Your task to perform on an android device: Install the Twitter app Image 0: 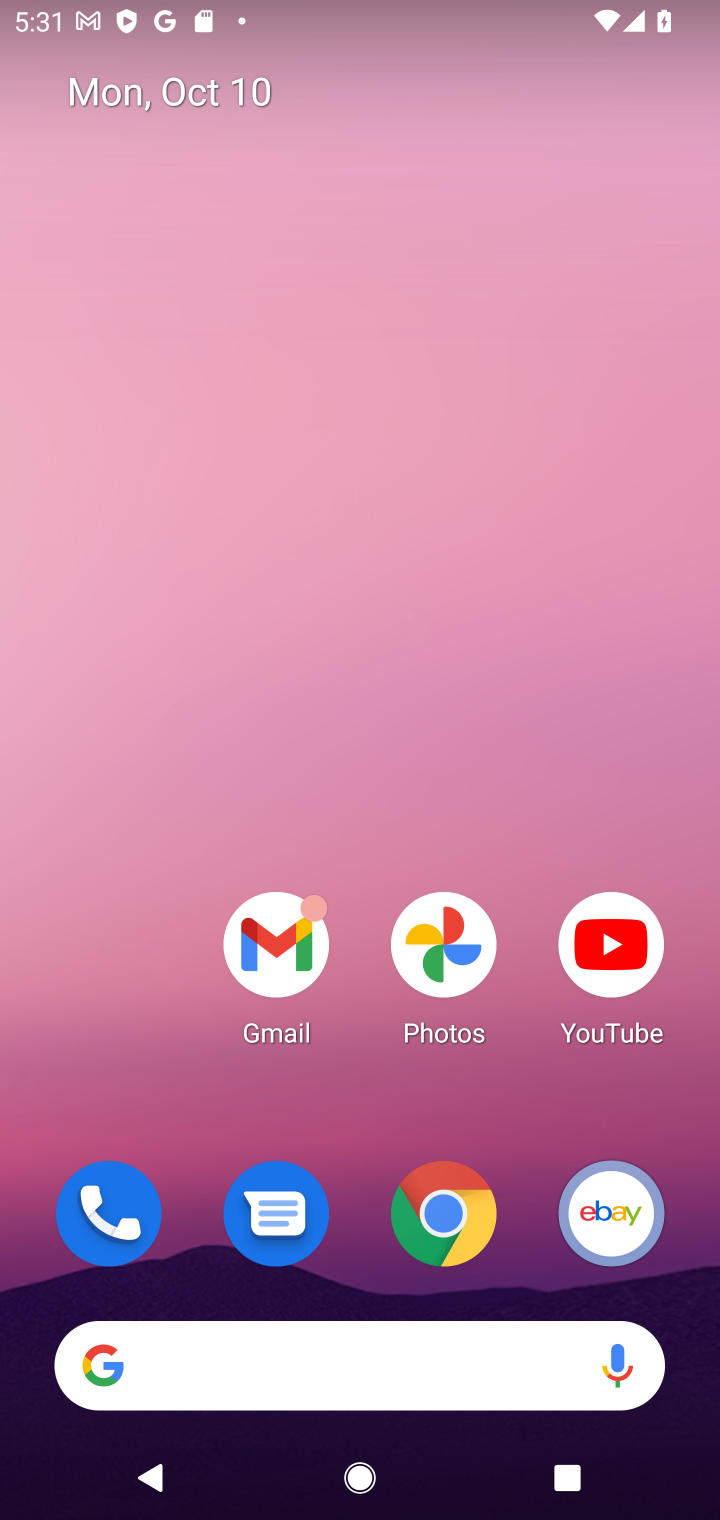
Step 0: drag from (358, 1093) to (368, 161)
Your task to perform on an android device: Install the Twitter app Image 1: 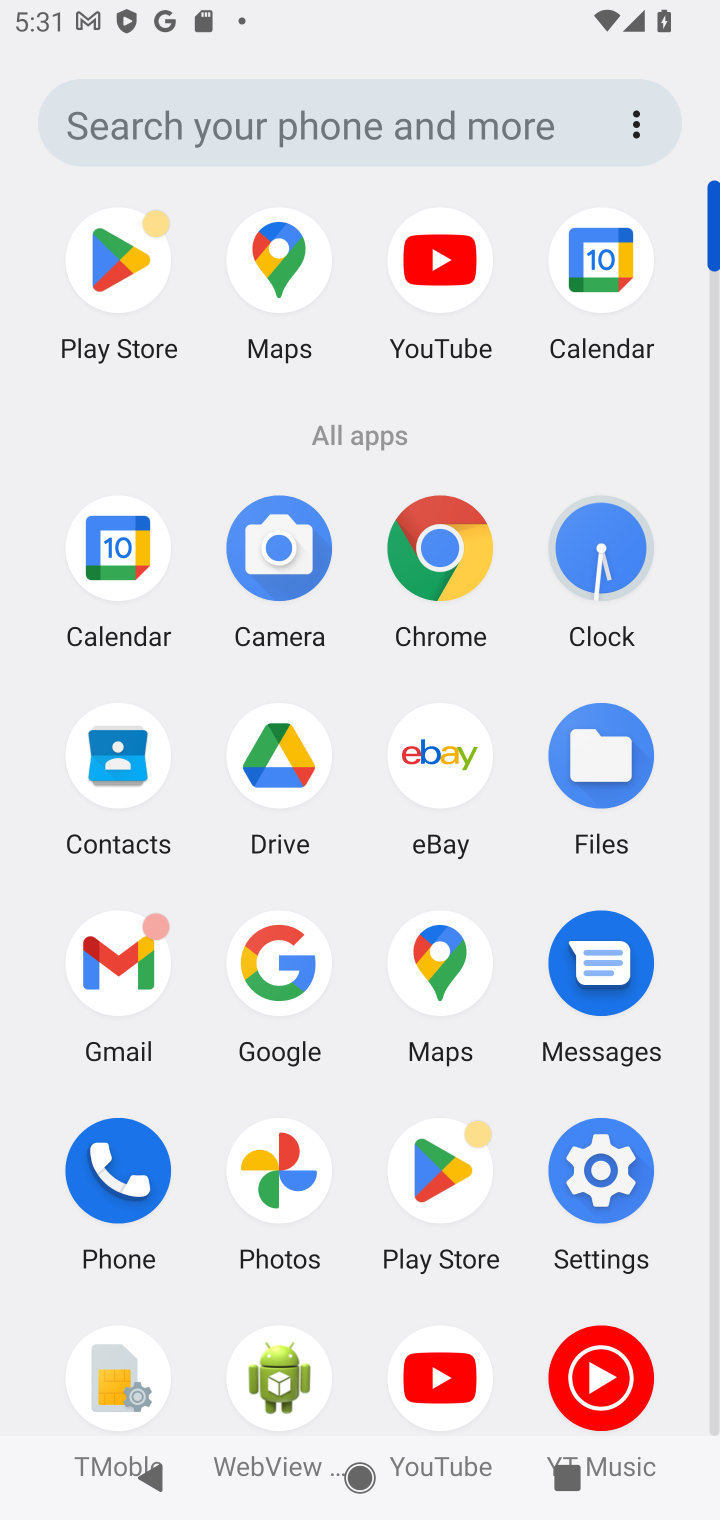
Step 1: click (113, 287)
Your task to perform on an android device: Install the Twitter app Image 2: 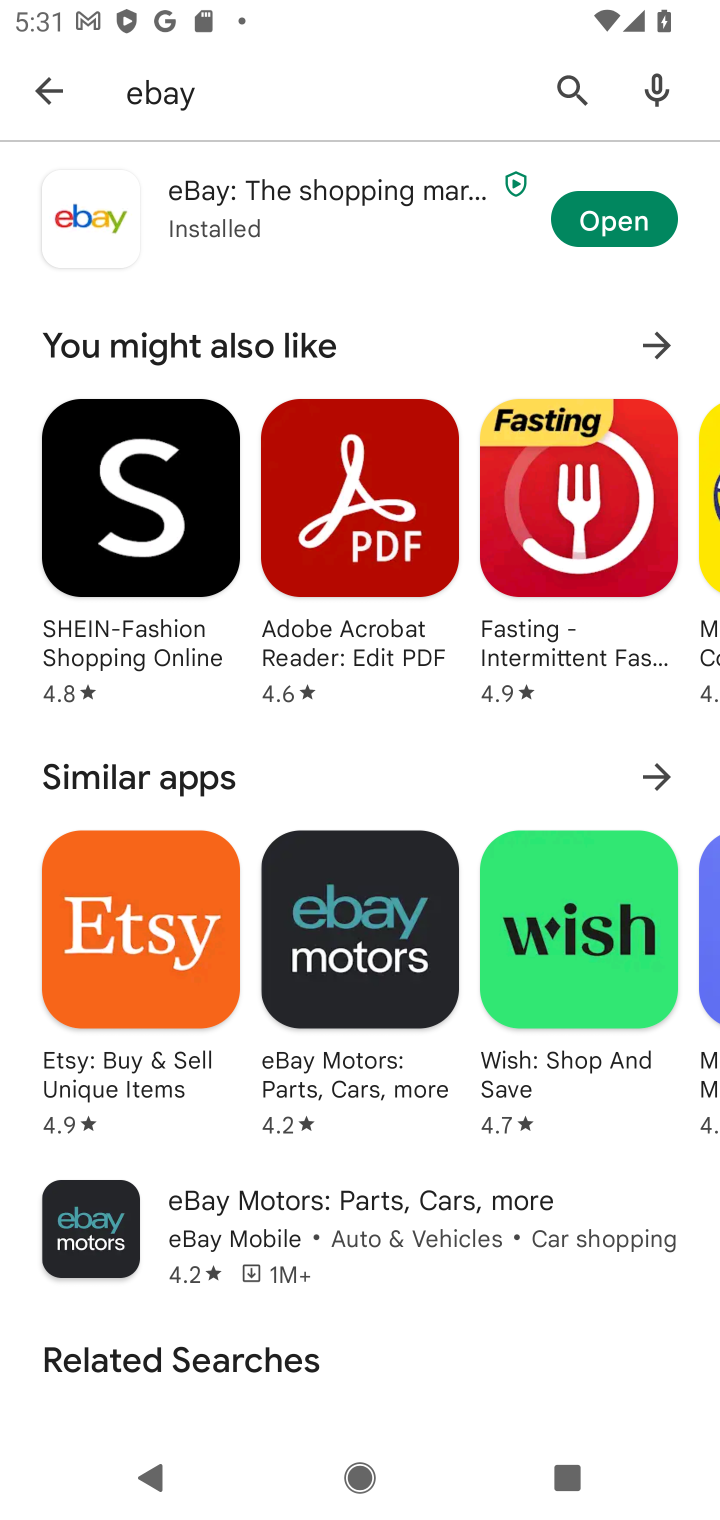
Step 2: click (559, 76)
Your task to perform on an android device: Install the Twitter app Image 3: 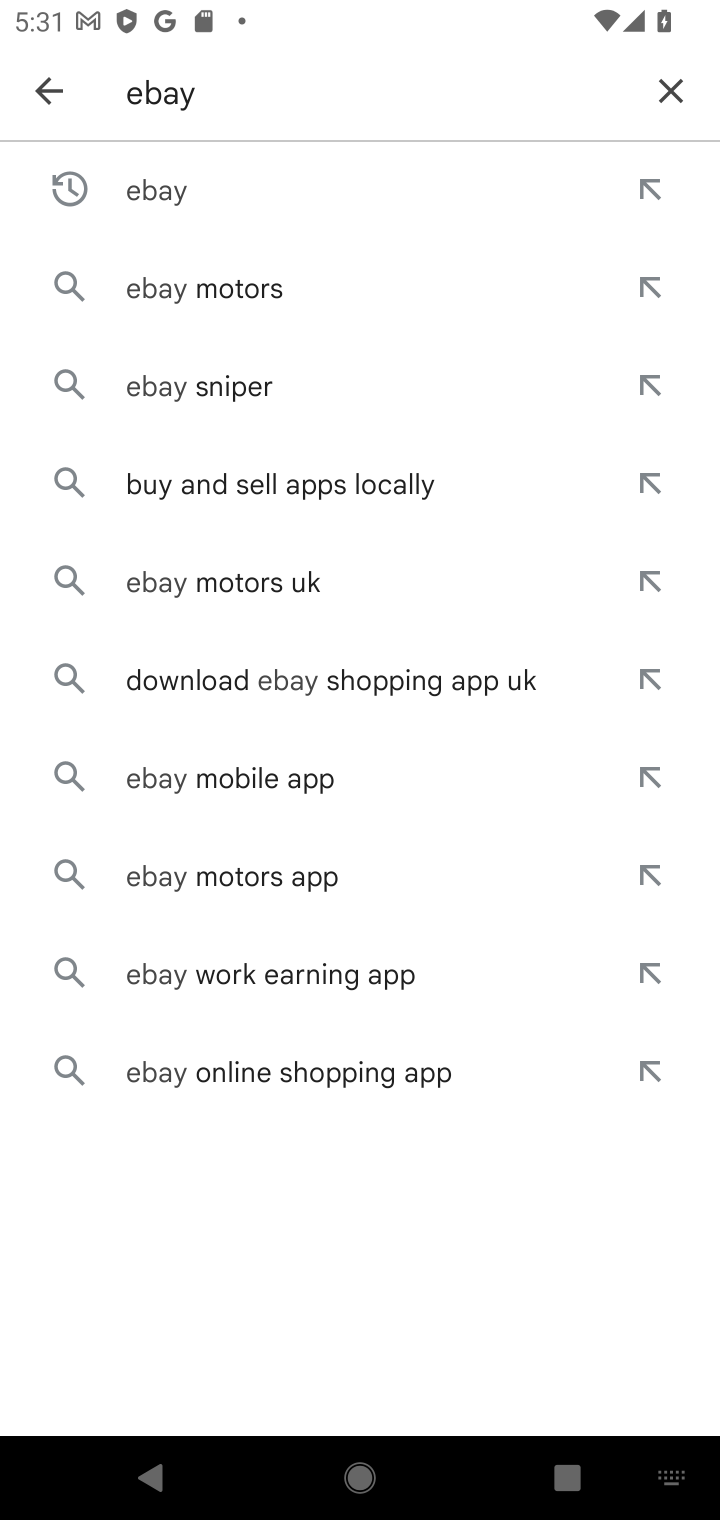
Step 3: click (675, 108)
Your task to perform on an android device: Install the Twitter app Image 4: 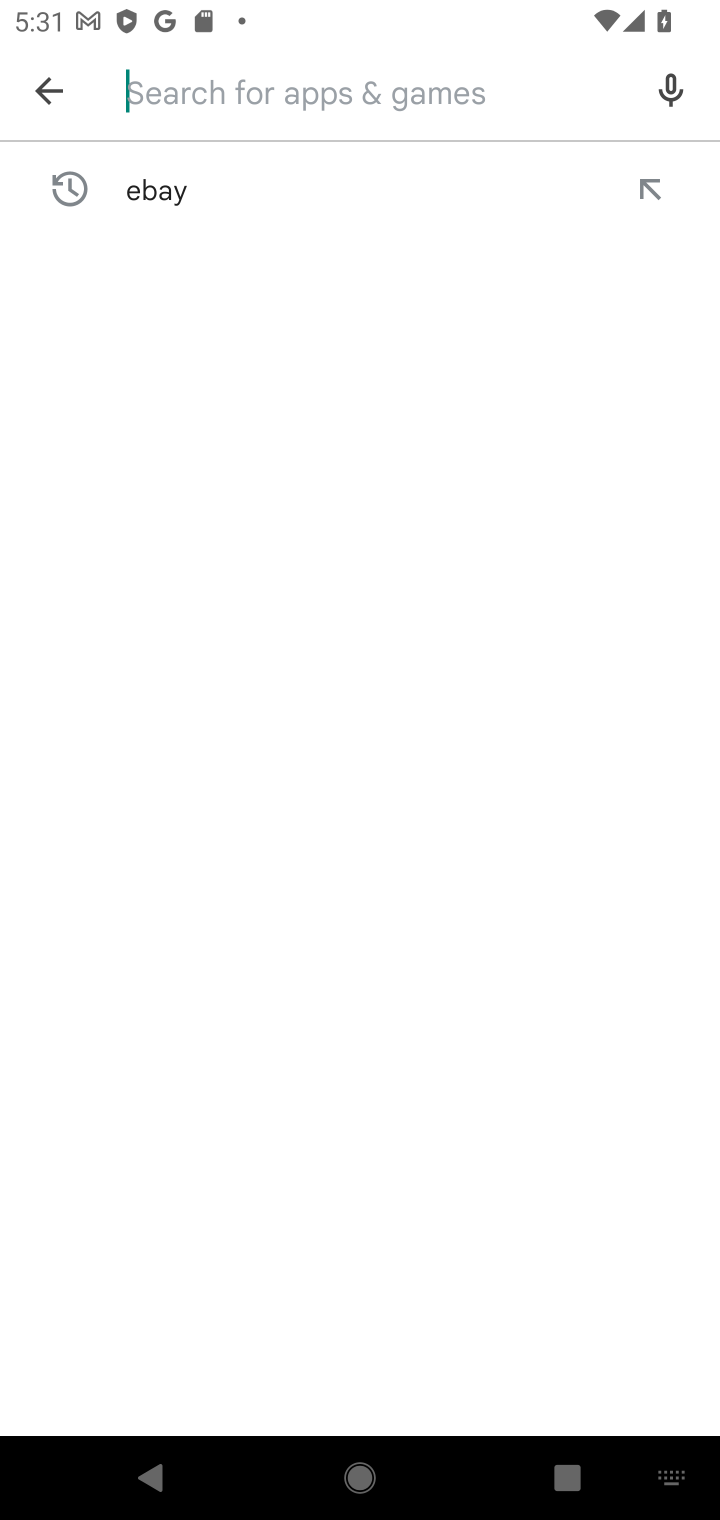
Step 4: type "Twitter app"
Your task to perform on an android device: Install the Twitter app Image 5: 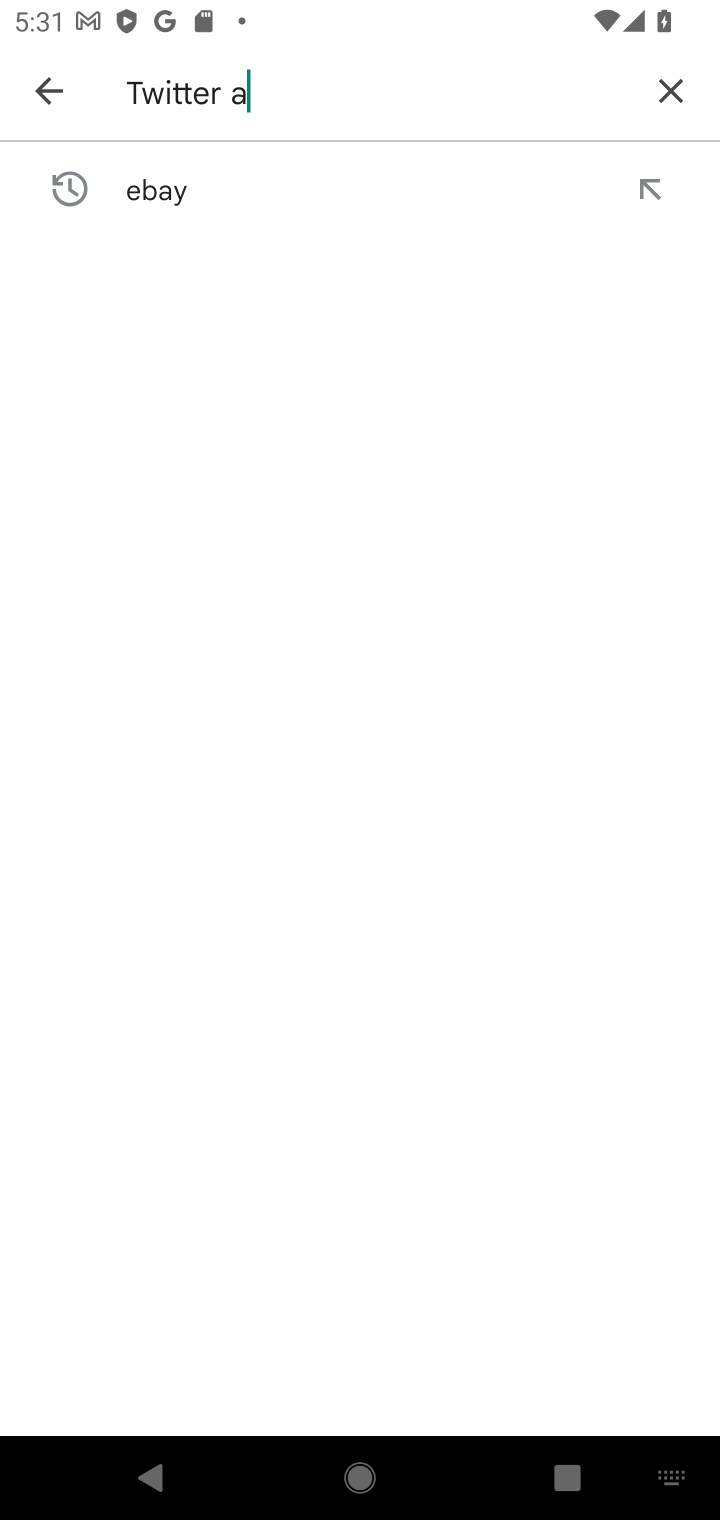
Step 5: type ""
Your task to perform on an android device: Install the Twitter app Image 6: 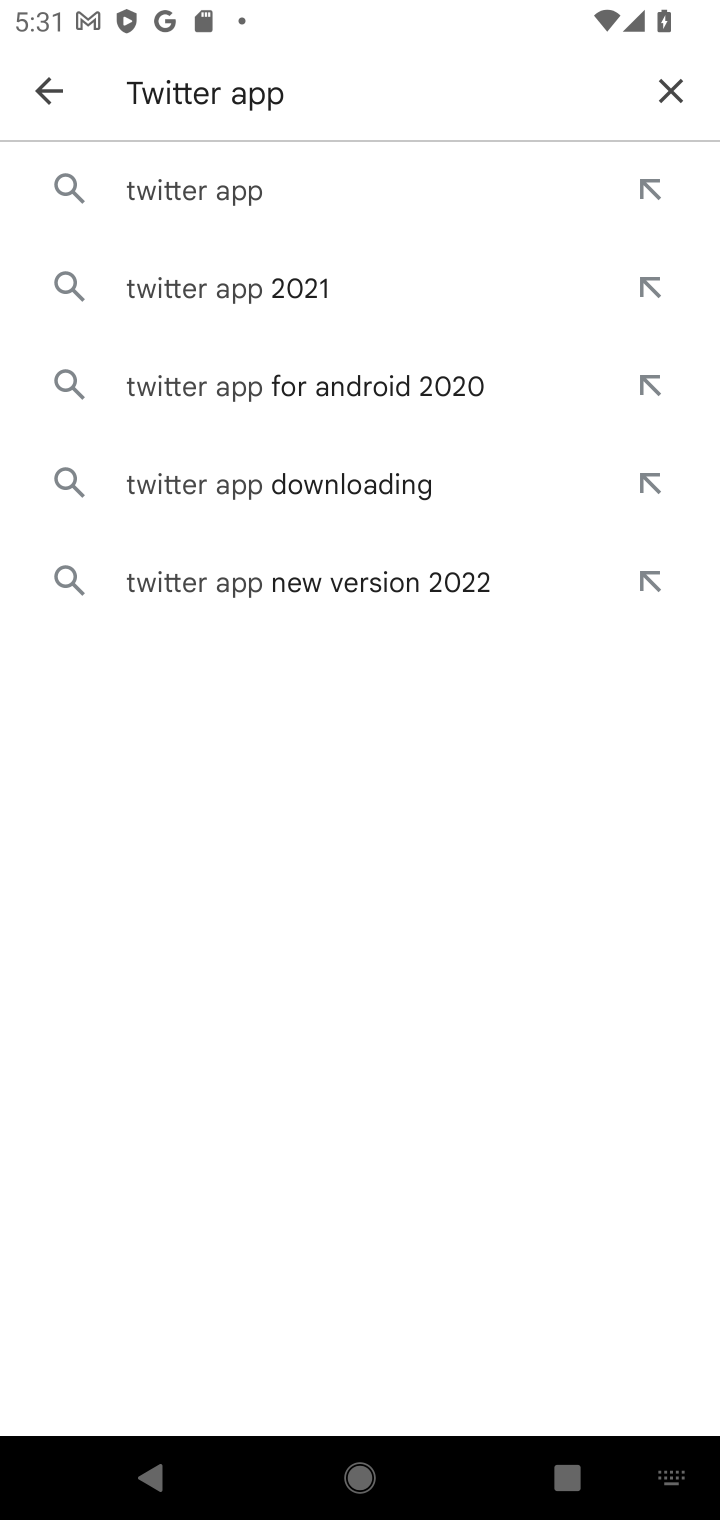
Step 6: click (265, 192)
Your task to perform on an android device: Install the Twitter app Image 7: 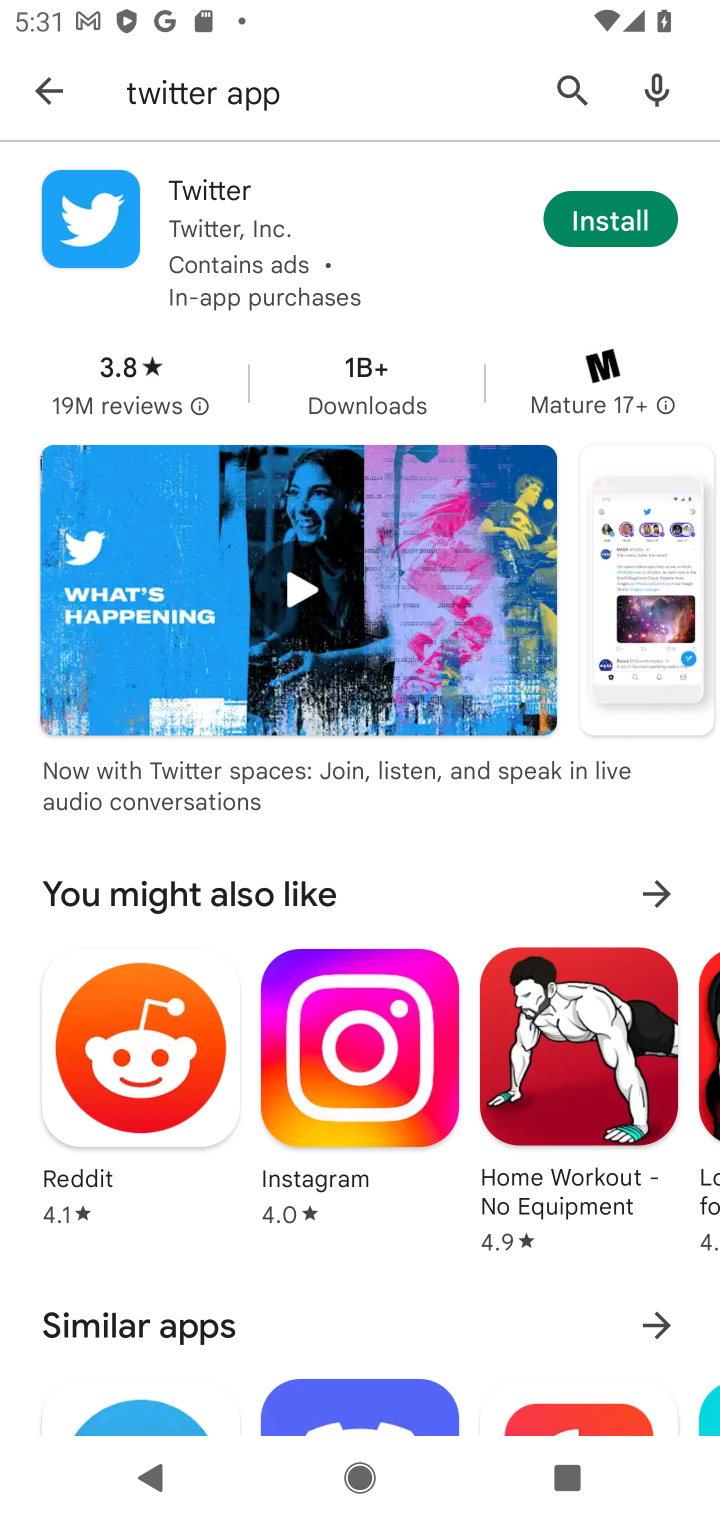
Step 7: click (586, 231)
Your task to perform on an android device: Install the Twitter app Image 8: 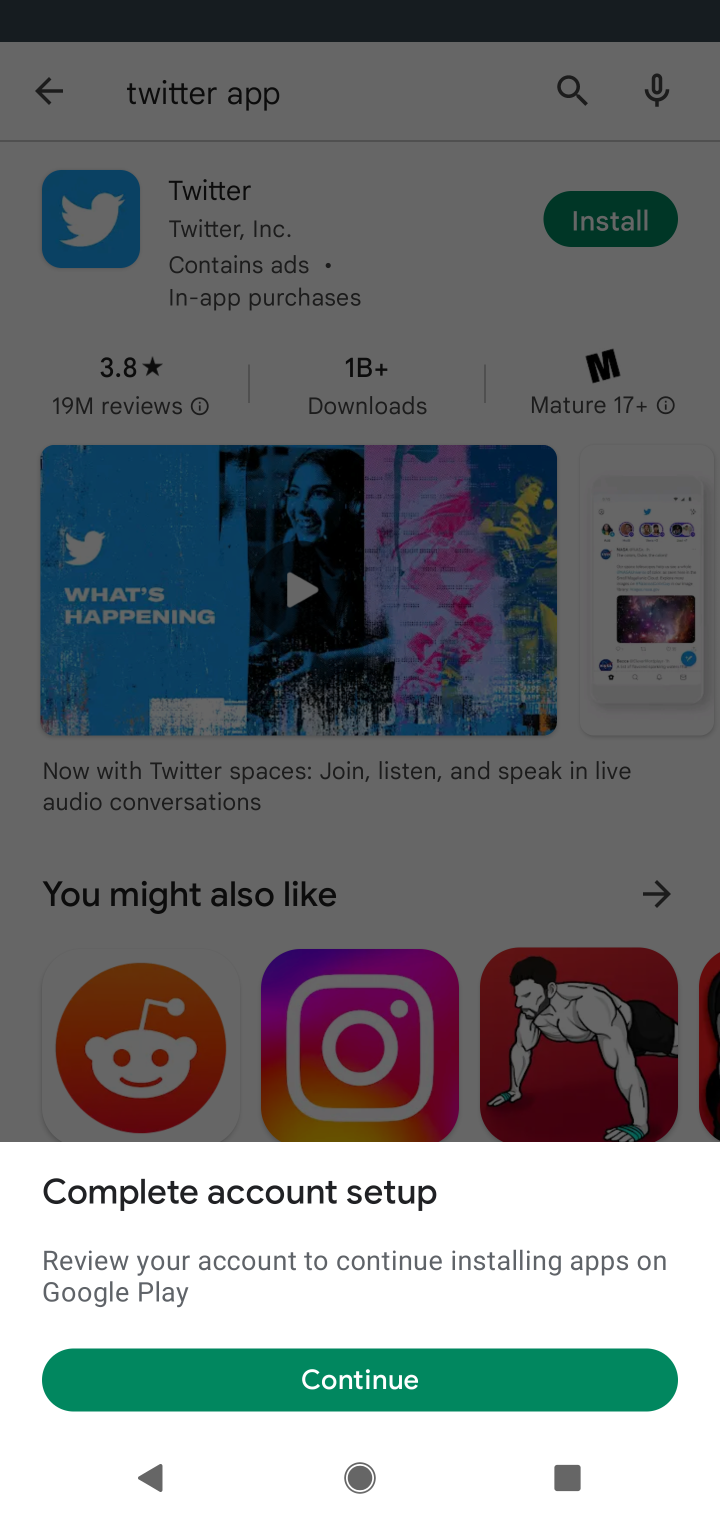
Step 8: click (371, 1366)
Your task to perform on an android device: Install the Twitter app Image 9: 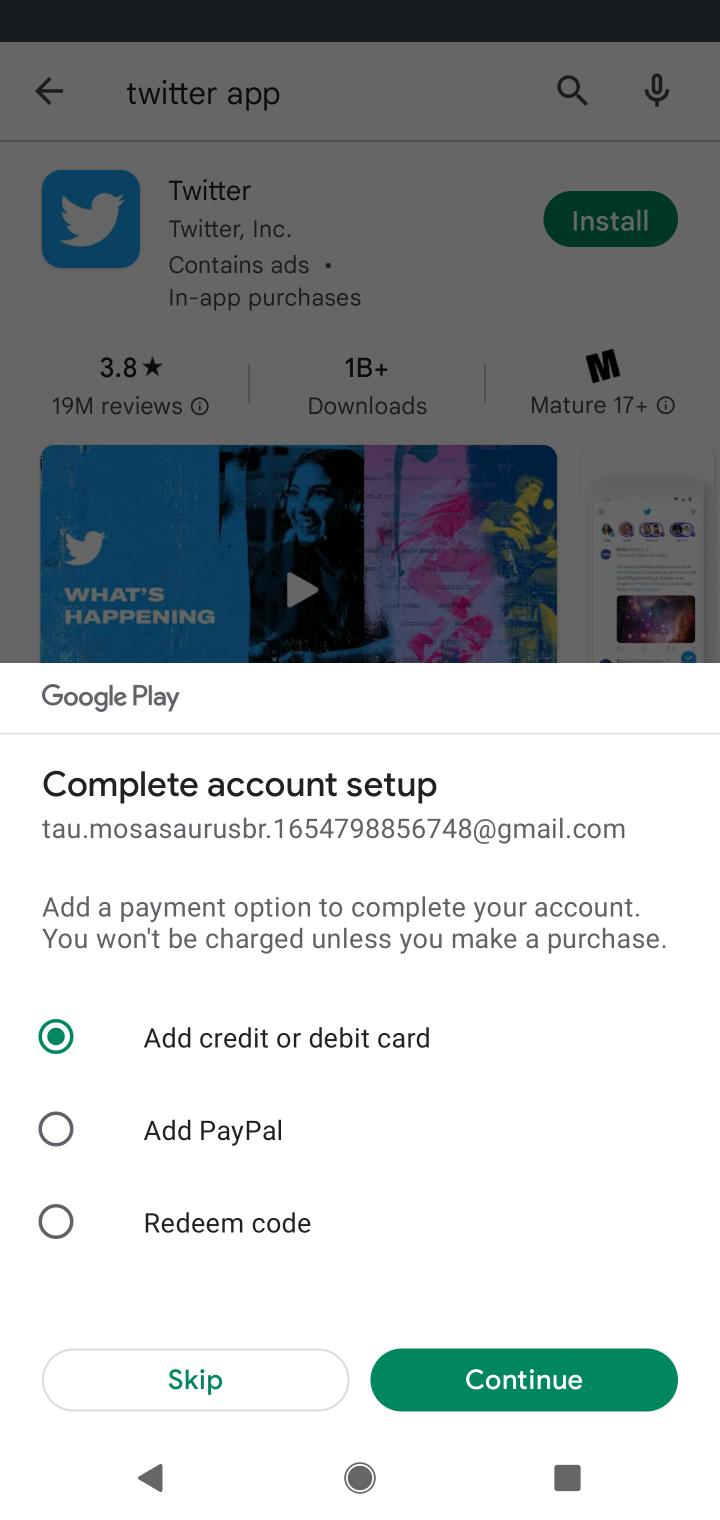
Step 9: click (184, 1381)
Your task to perform on an android device: Install the Twitter app Image 10: 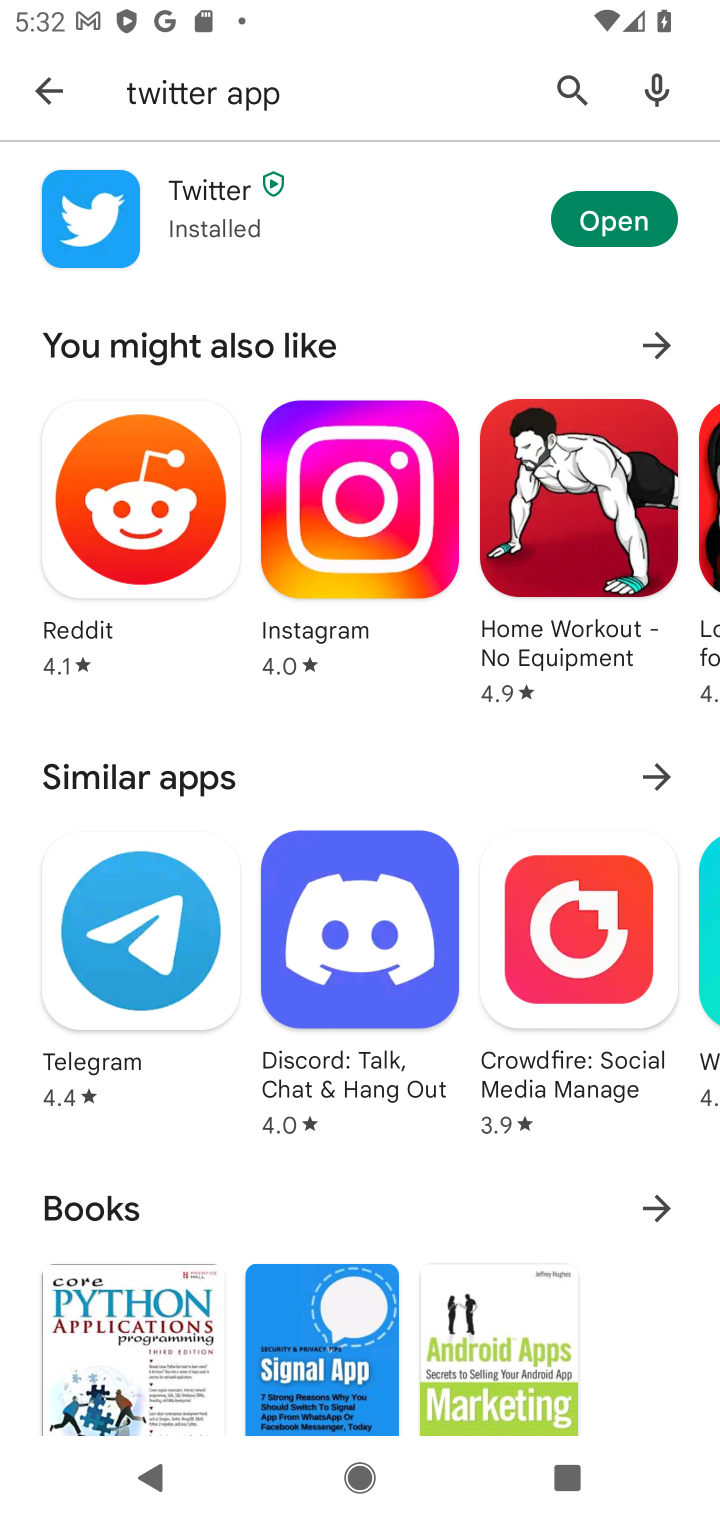
Step 10: task complete